Your task to perform on an android device: set the stopwatch Image 0: 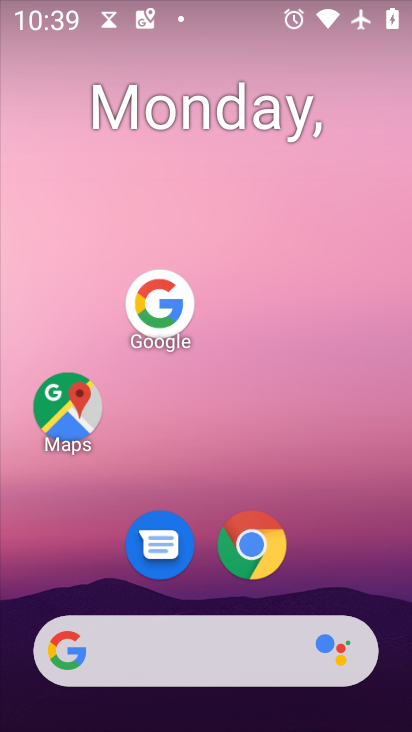
Step 0: press home button
Your task to perform on an android device: set the stopwatch Image 1: 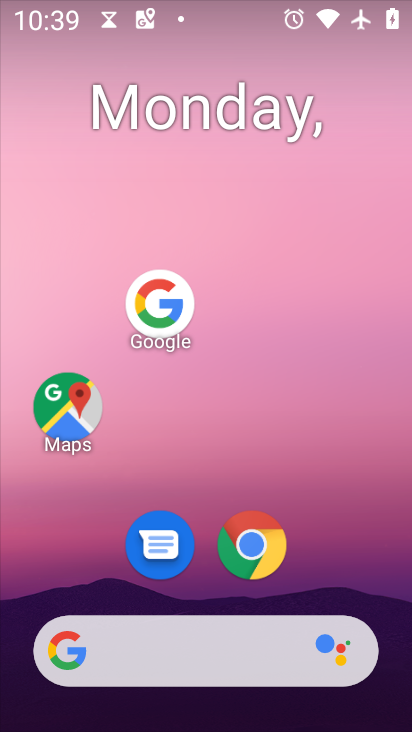
Step 1: drag from (185, 654) to (313, 91)
Your task to perform on an android device: set the stopwatch Image 2: 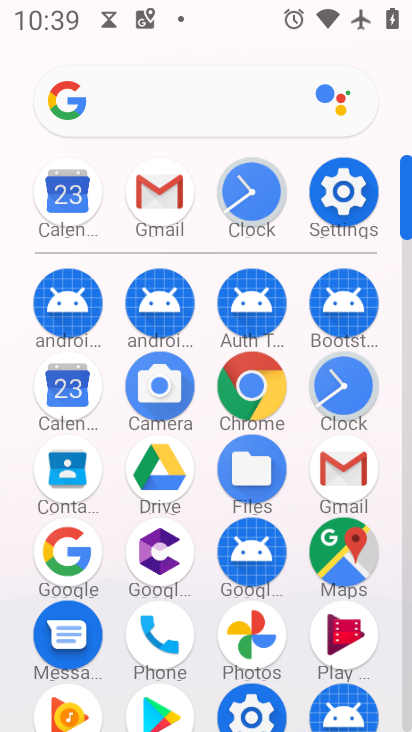
Step 2: click (348, 394)
Your task to perform on an android device: set the stopwatch Image 3: 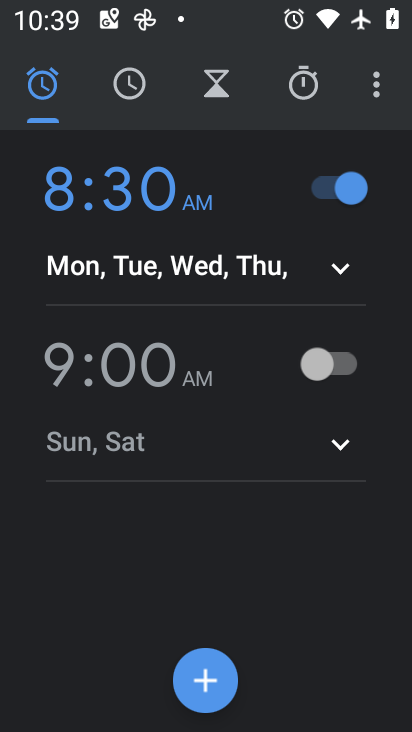
Step 3: click (312, 96)
Your task to perform on an android device: set the stopwatch Image 4: 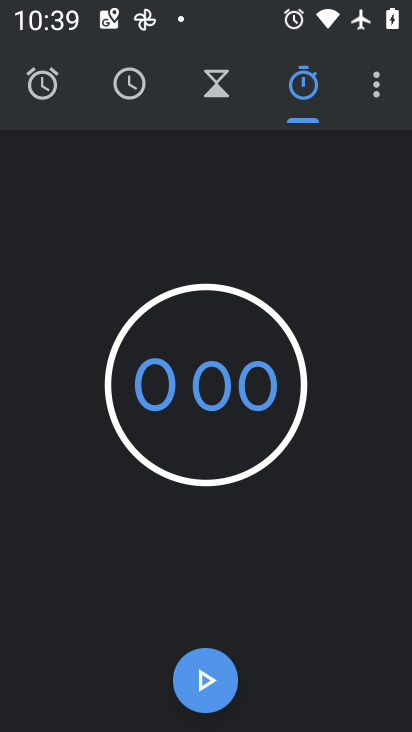
Step 4: click (205, 419)
Your task to perform on an android device: set the stopwatch Image 5: 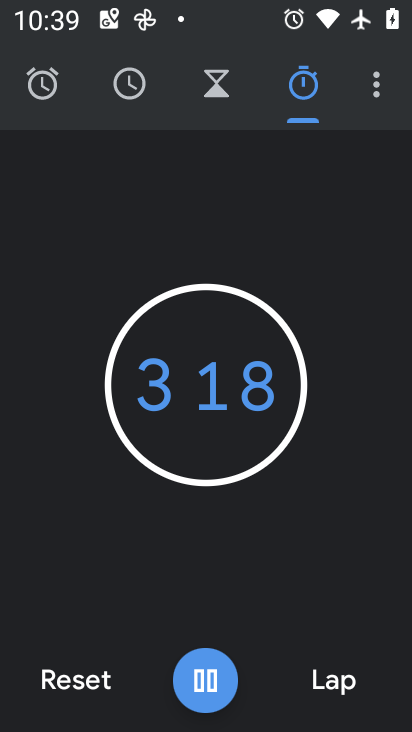
Step 5: click (205, 419)
Your task to perform on an android device: set the stopwatch Image 6: 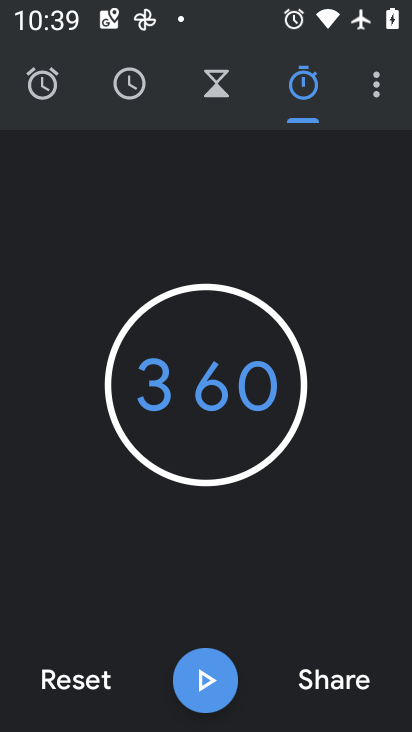
Step 6: task complete